Your task to perform on an android device: empty trash in google photos Image 0: 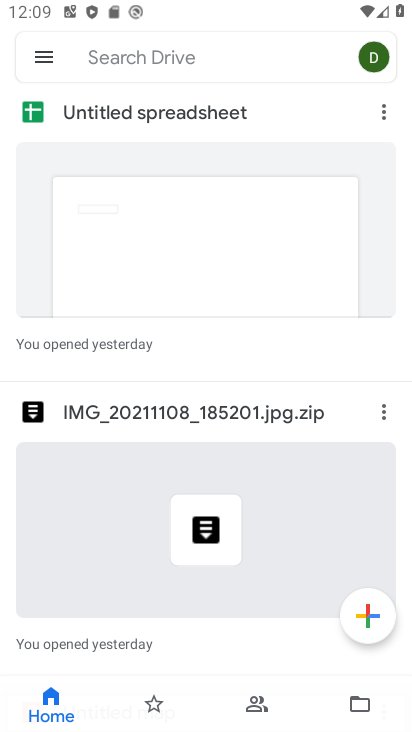
Step 0: press home button
Your task to perform on an android device: empty trash in google photos Image 1: 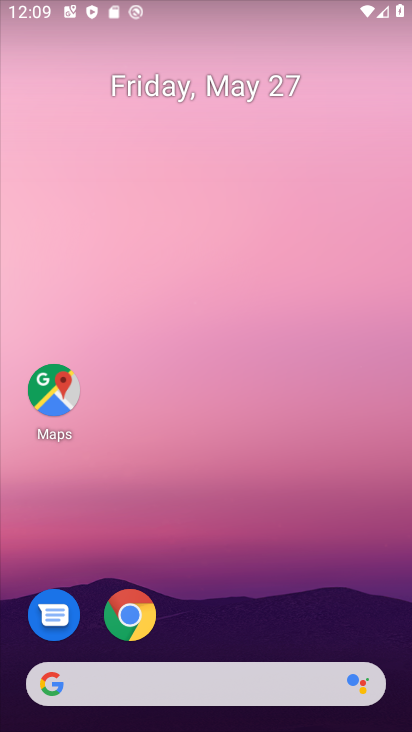
Step 1: drag from (222, 664) to (251, 3)
Your task to perform on an android device: empty trash in google photos Image 2: 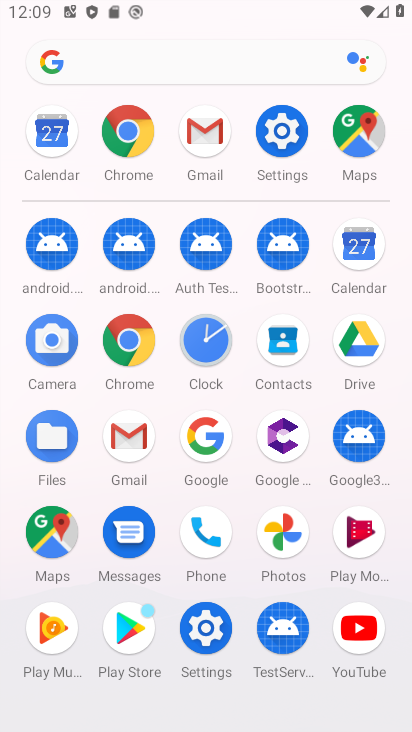
Step 2: click (287, 545)
Your task to perform on an android device: empty trash in google photos Image 3: 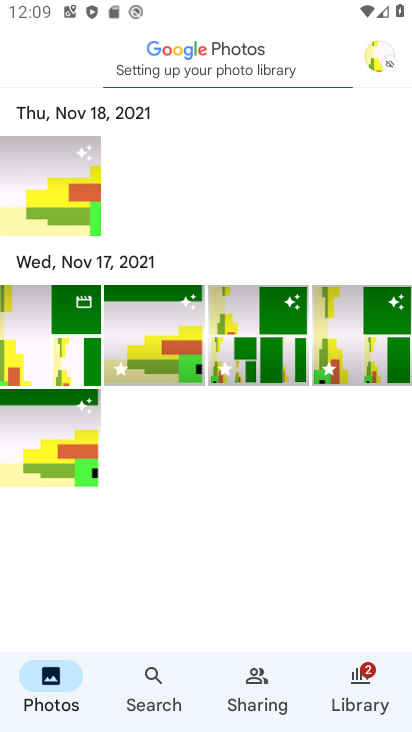
Step 3: click (358, 681)
Your task to perform on an android device: empty trash in google photos Image 4: 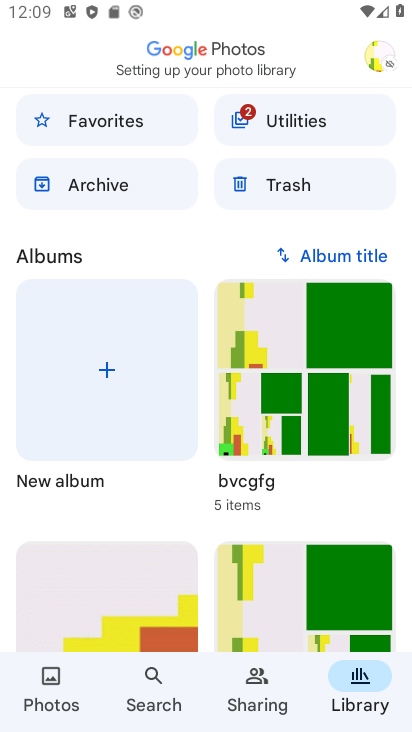
Step 4: click (305, 183)
Your task to perform on an android device: empty trash in google photos Image 5: 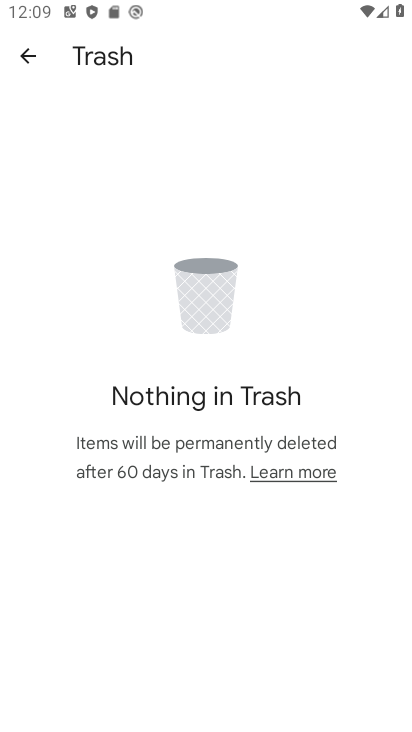
Step 5: task complete